Your task to perform on an android device: change keyboard looks Image 0: 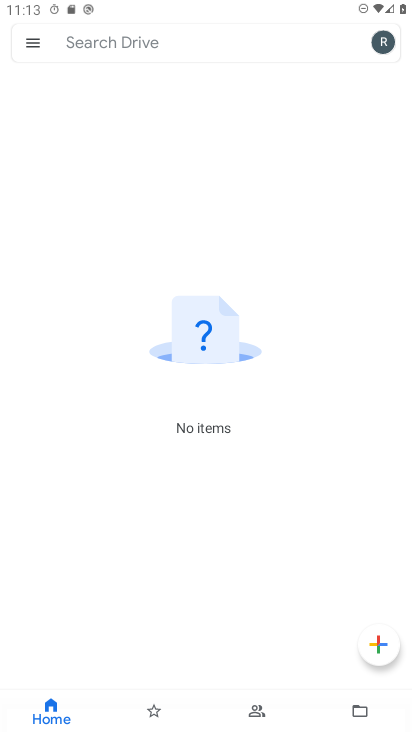
Step 0: press home button
Your task to perform on an android device: change keyboard looks Image 1: 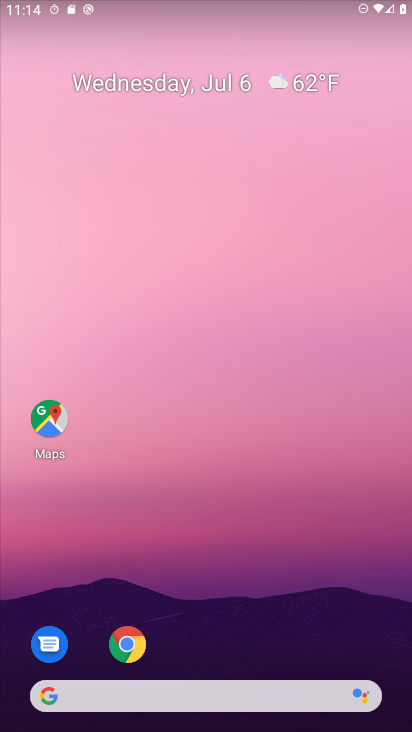
Step 1: drag from (236, 577) to (259, 133)
Your task to perform on an android device: change keyboard looks Image 2: 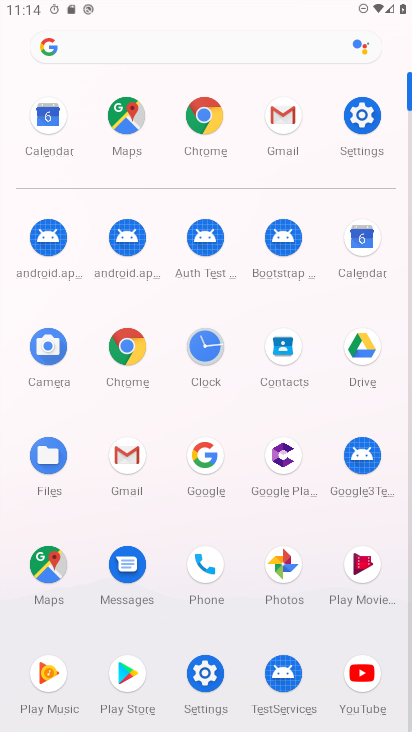
Step 2: click (369, 117)
Your task to perform on an android device: change keyboard looks Image 3: 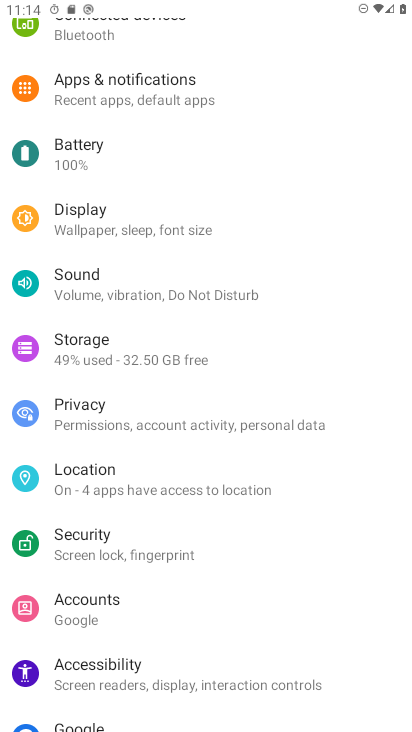
Step 3: drag from (264, 606) to (243, 147)
Your task to perform on an android device: change keyboard looks Image 4: 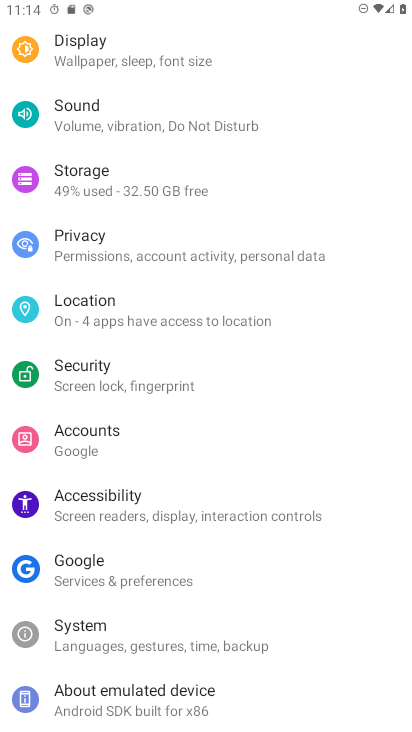
Step 4: click (121, 642)
Your task to perform on an android device: change keyboard looks Image 5: 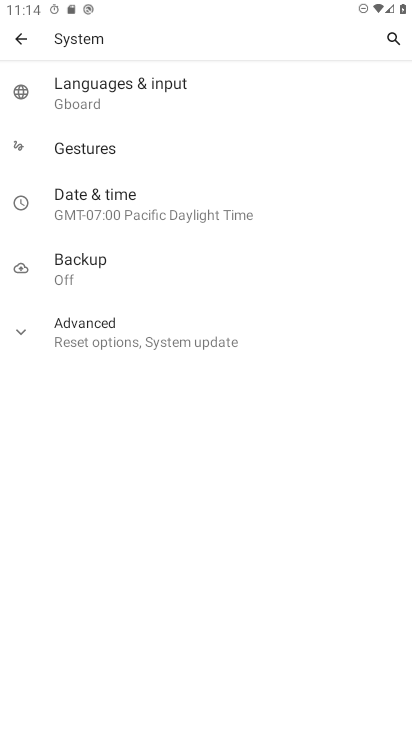
Step 5: click (109, 89)
Your task to perform on an android device: change keyboard looks Image 6: 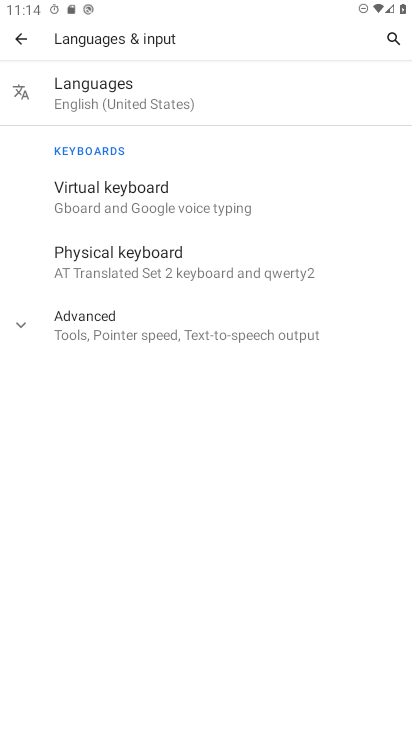
Step 6: click (141, 198)
Your task to perform on an android device: change keyboard looks Image 7: 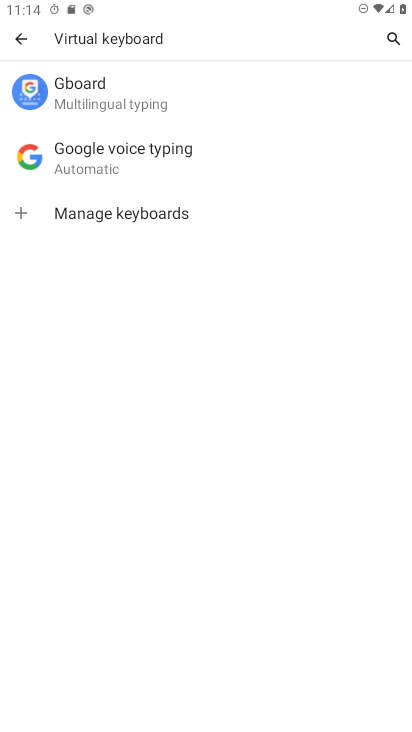
Step 7: click (108, 106)
Your task to perform on an android device: change keyboard looks Image 8: 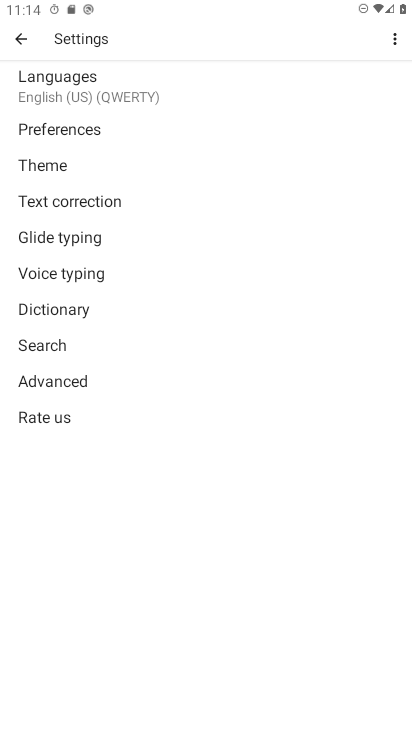
Step 8: click (46, 164)
Your task to perform on an android device: change keyboard looks Image 9: 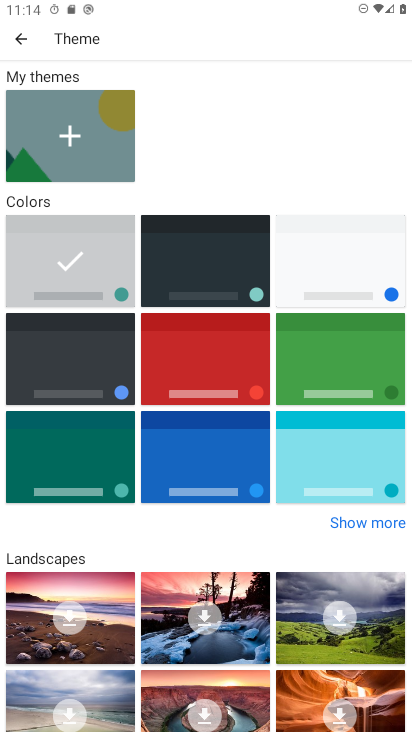
Step 9: click (191, 279)
Your task to perform on an android device: change keyboard looks Image 10: 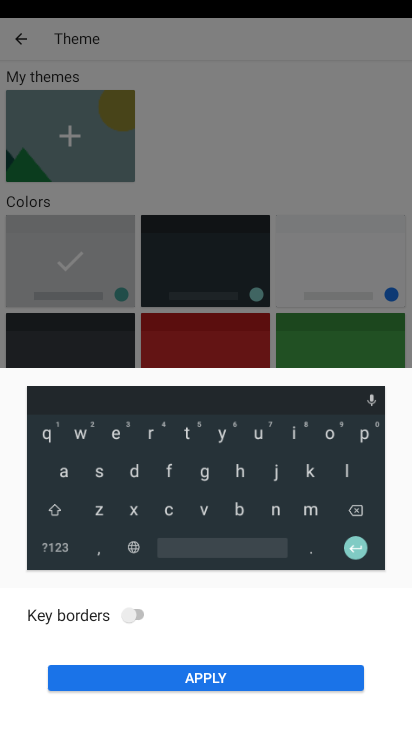
Step 10: click (128, 678)
Your task to perform on an android device: change keyboard looks Image 11: 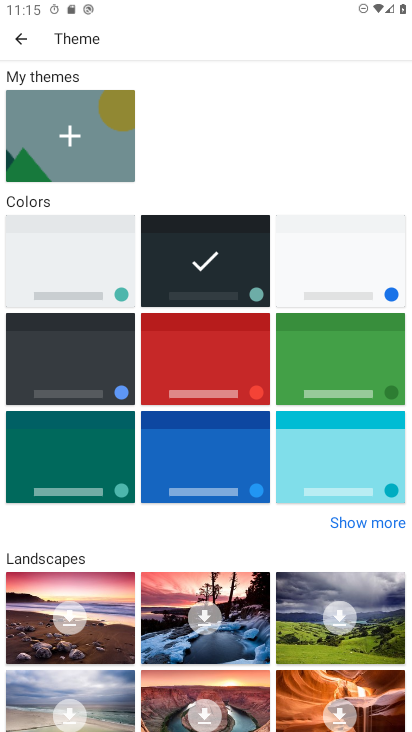
Step 11: task complete